Your task to perform on an android device: check out phone information Image 0: 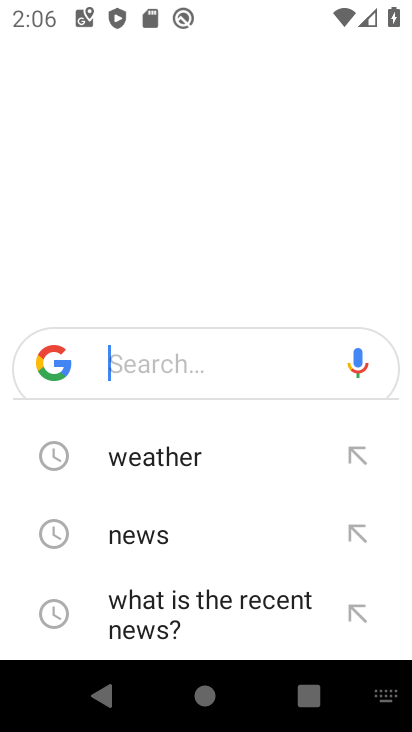
Step 0: press home button
Your task to perform on an android device: check out phone information Image 1: 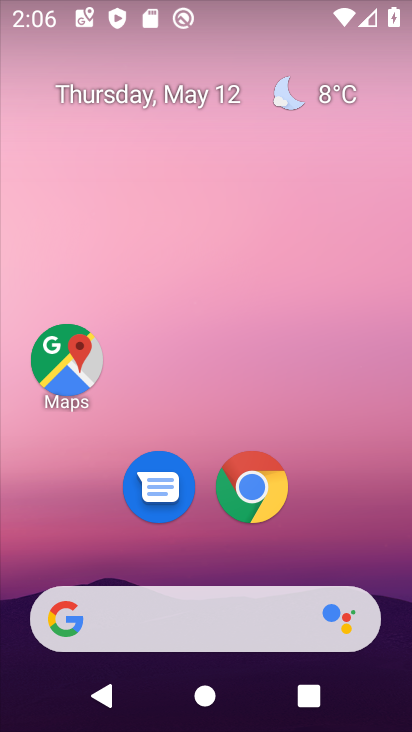
Step 1: drag from (191, 535) to (229, 112)
Your task to perform on an android device: check out phone information Image 2: 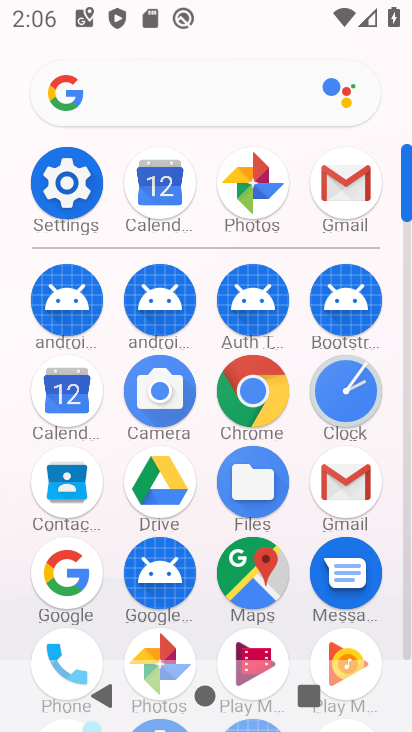
Step 2: click (79, 206)
Your task to perform on an android device: check out phone information Image 3: 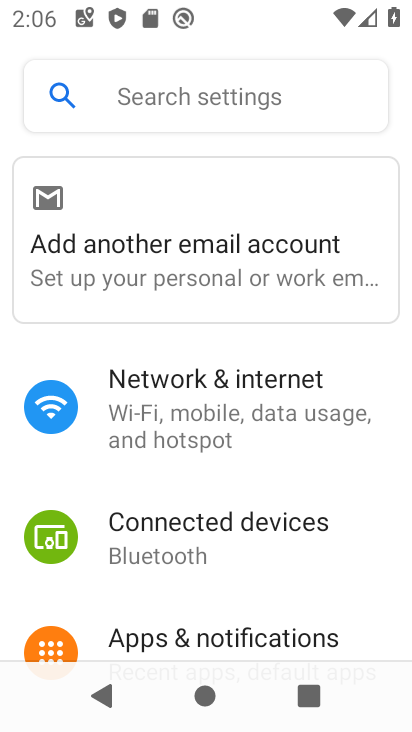
Step 3: drag from (216, 599) to (282, 121)
Your task to perform on an android device: check out phone information Image 4: 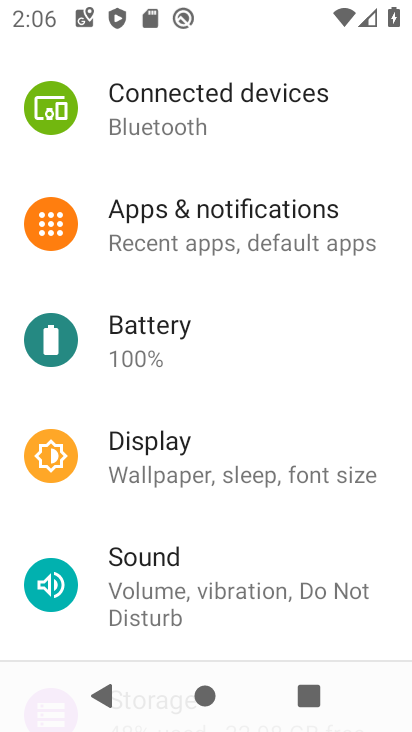
Step 4: drag from (140, 547) to (129, 118)
Your task to perform on an android device: check out phone information Image 5: 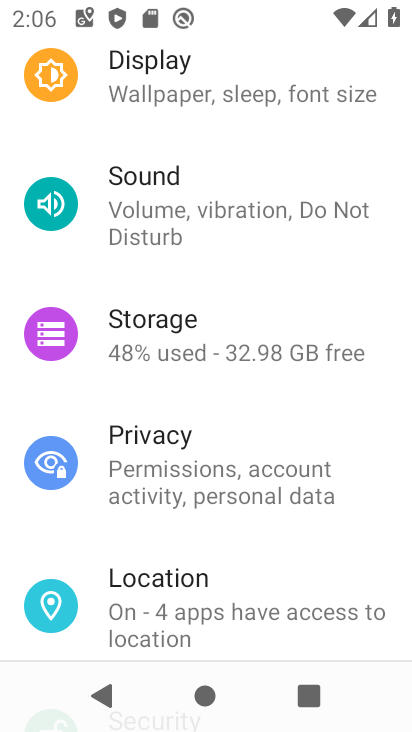
Step 5: drag from (74, 547) to (211, 172)
Your task to perform on an android device: check out phone information Image 6: 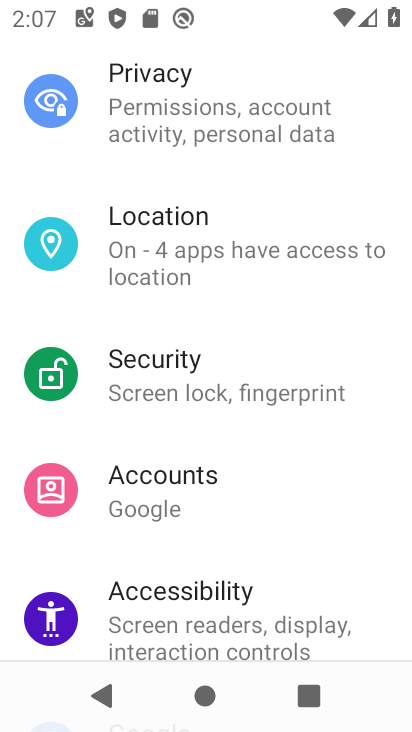
Step 6: drag from (175, 547) to (188, 137)
Your task to perform on an android device: check out phone information Image 7: 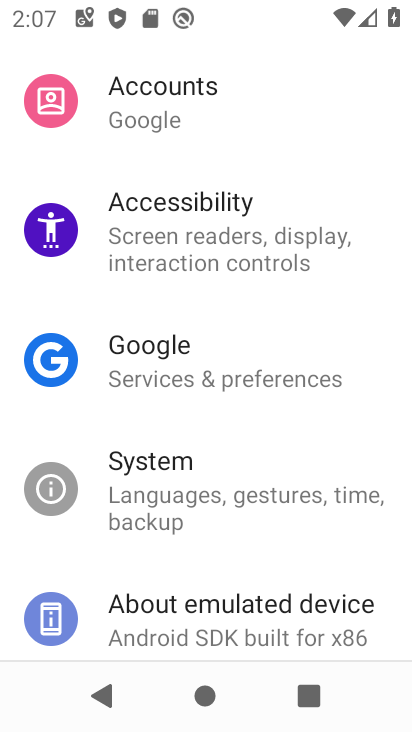
Step 7: click (184, 603)
Your task to perform on an android device: check out phone information Image 8: 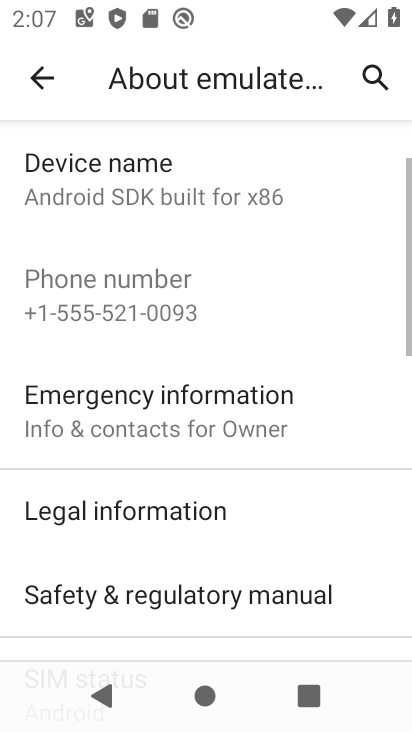
Step 8: task complete